Your task to perform on an android device: turn on improve location accuracy Image 0: 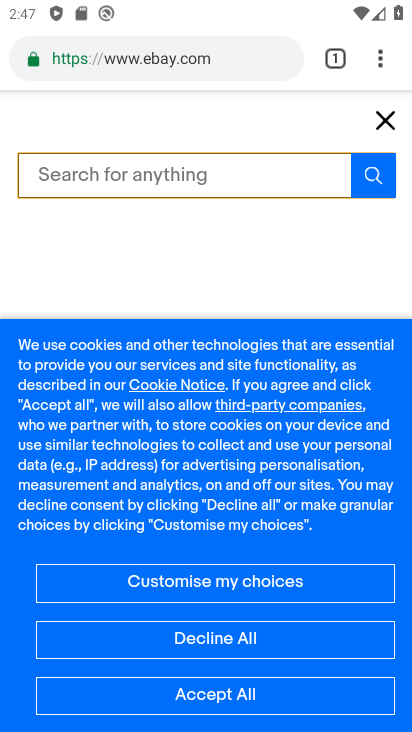
Step 0: press home button
Your task to perform on an android device: turn on improve location accuracy Image 1: 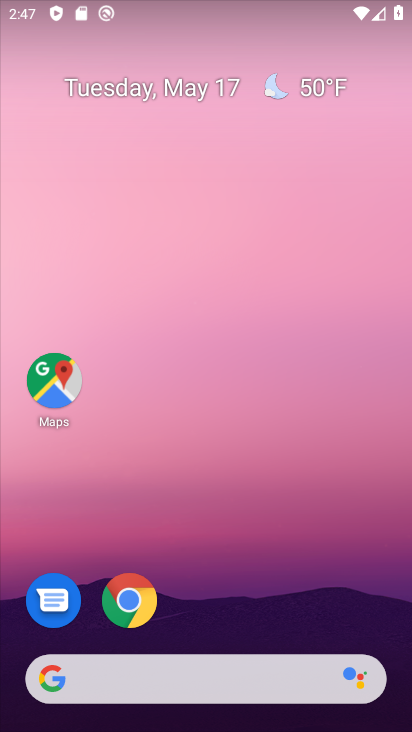
Step 1: drag from (228, 537) to (206, 208)
Your task to perform on an android device: turn on improve location accuracy Image 2: 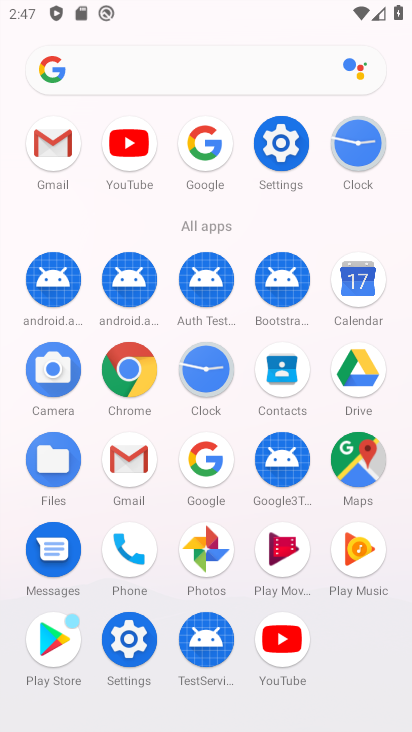
Step 2: click (290, 168)
Your task to perform on an android device: turn on improve location accuracy Image 3: 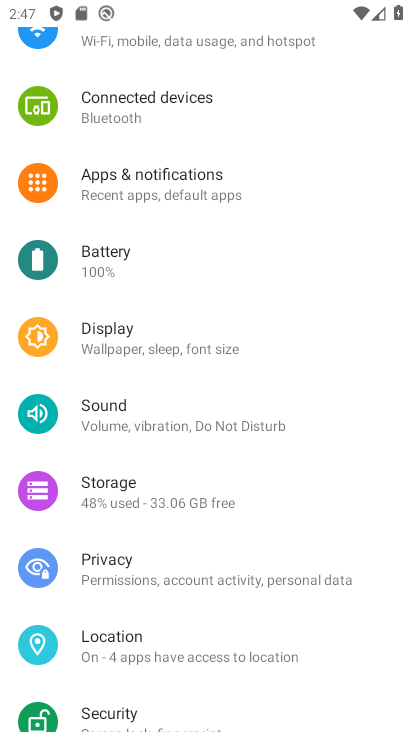
Step 3: click (190, 643)
Your task to perform on an android device: turn on improve location accuracy Image 4: 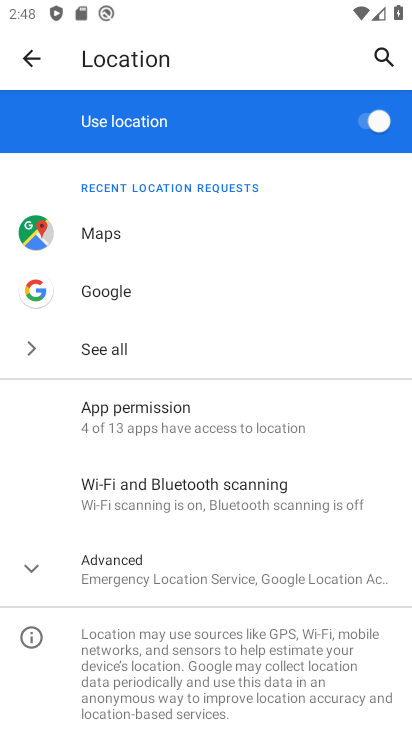
Step 4: click (36, 566)
Your task to perform on an android device: turn on improve location accuracy Image 5: 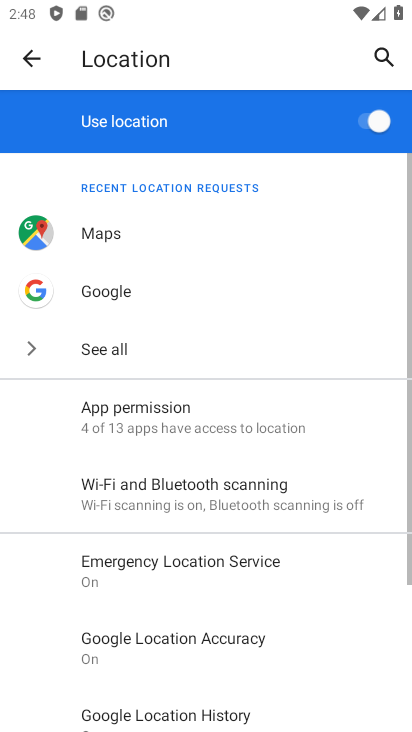
Step 5: click (159, 656)
Your task to perform on an android device: turn on improve location accuracy Image 6: 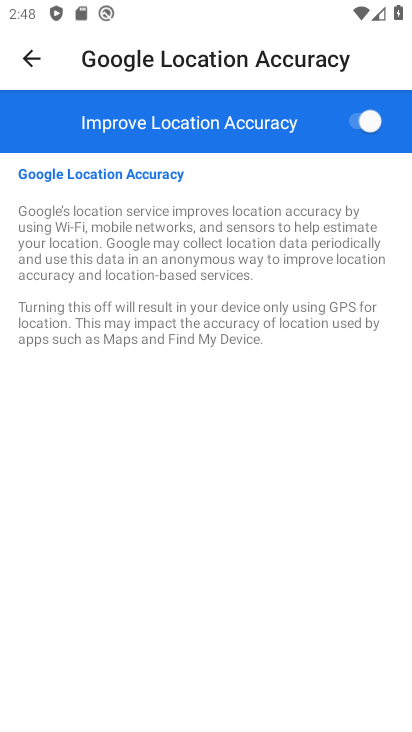
Step 6: task complete